Your task to perform on an android device: uninstall "Google Sheets" Image 0: 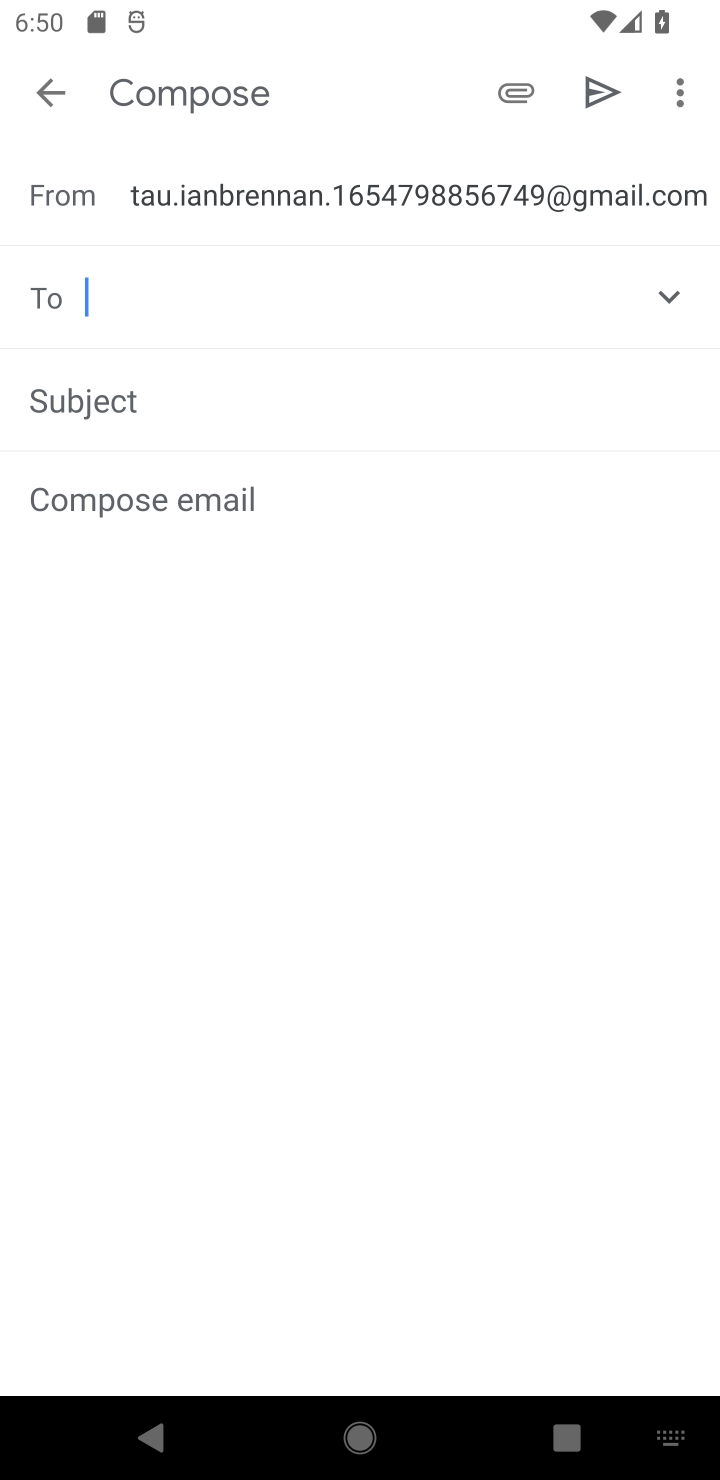
Step 0: press home button
Your task to perform on an android device: uninstall "Google Sheets" Image 1: 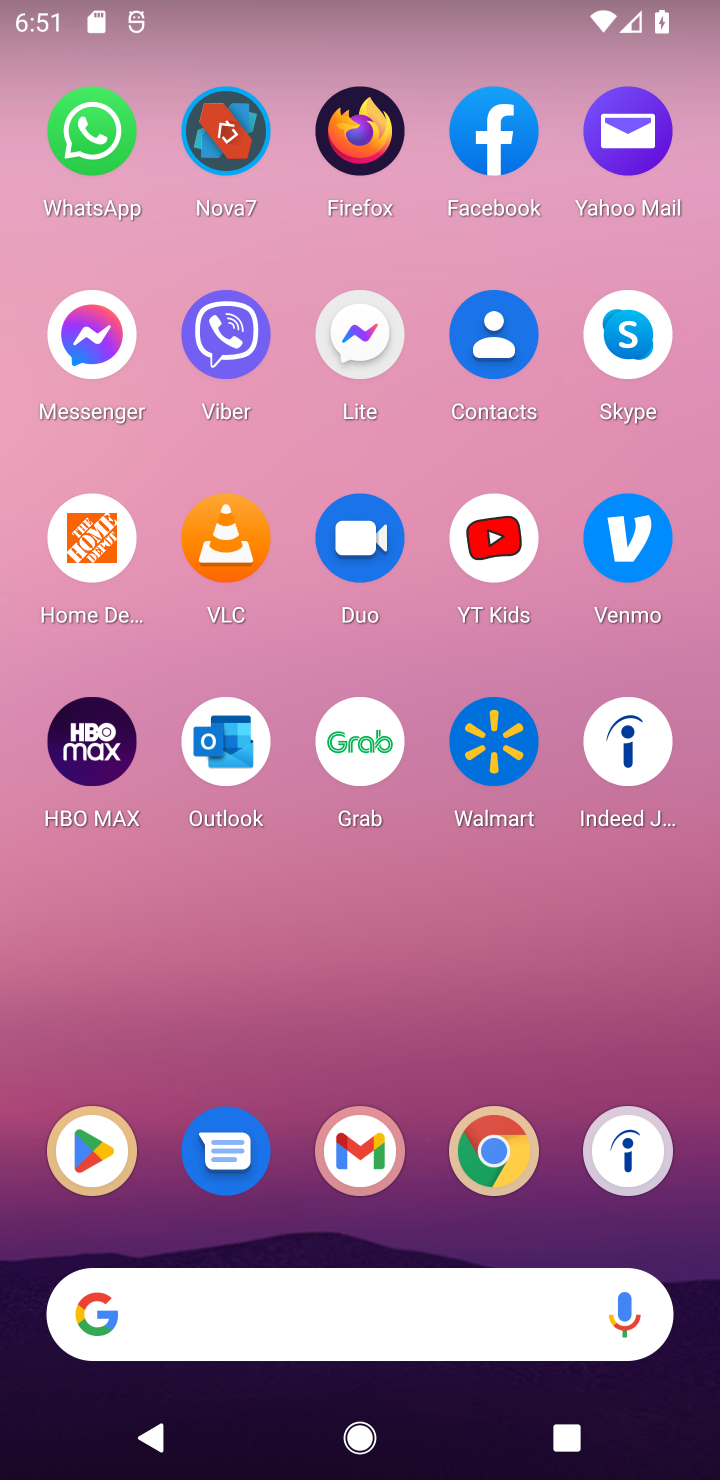
Step 1: click (82, 1174)
Your task to perform on an android device: uninstall "Google Sheets" Image 2: 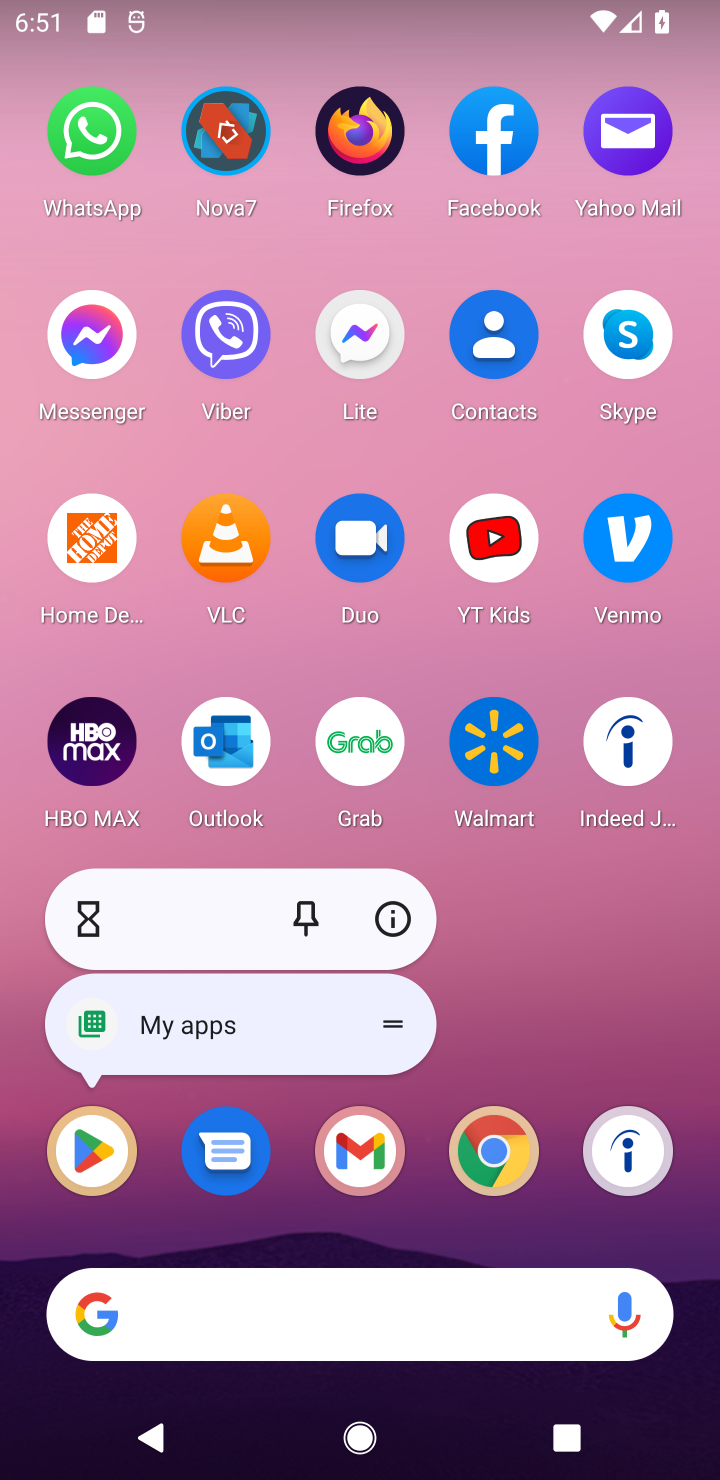
Step 2: click (88, 1155)
Your task to perform on an android device: uninstall "Google Sheets" Image 3: 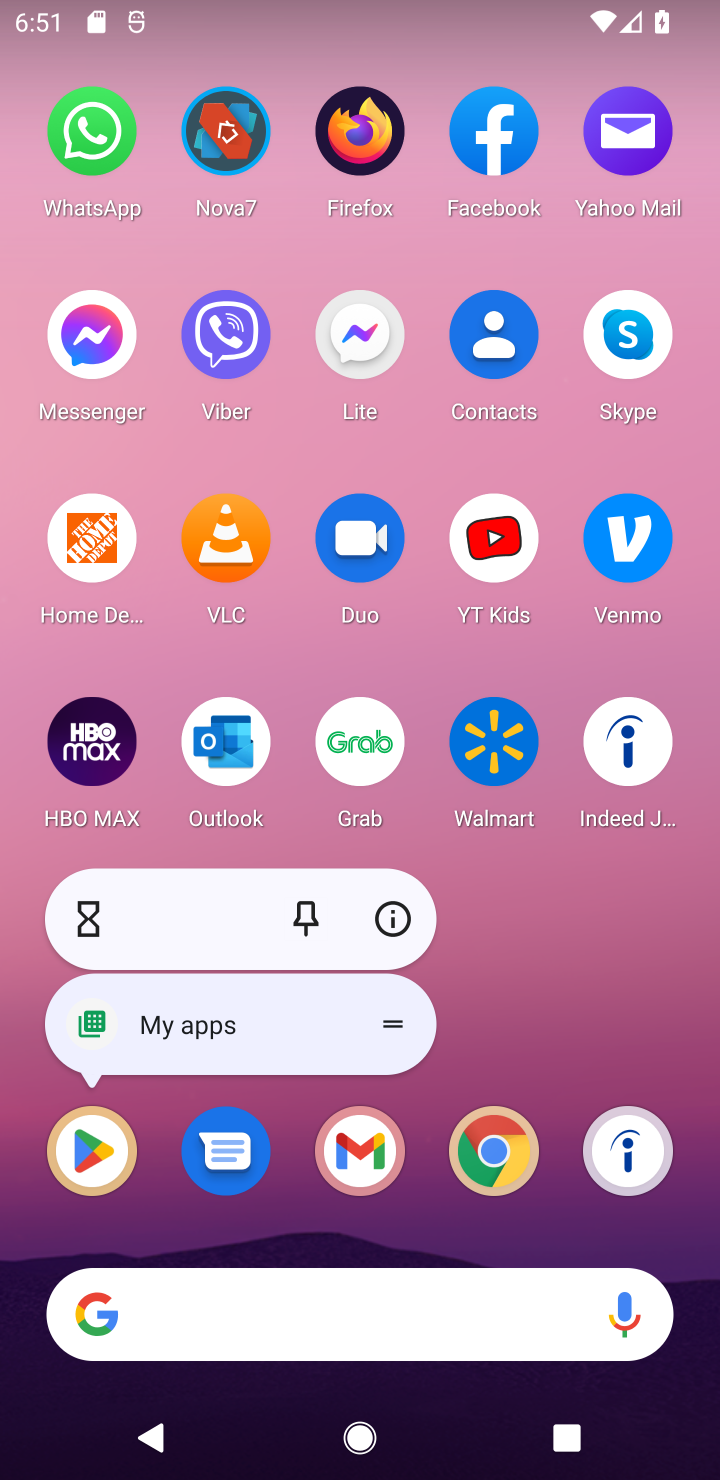
Step 3: click (90, 1168)
Your task to perform on an android device: uninstall "Google Sheets" Image 4: 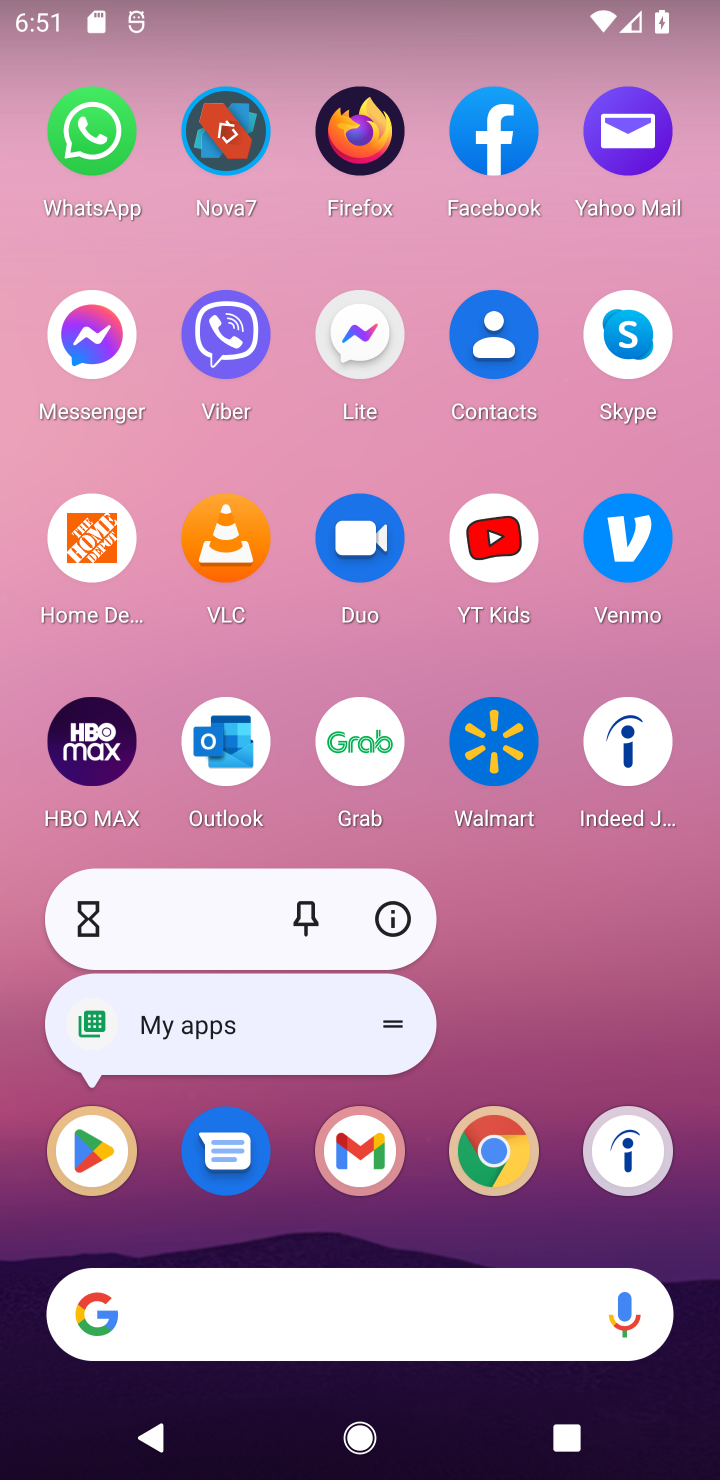
Step 4: click (90, 1168)
Your task to perform on an android device: uninstall "Google Sheets" Image 5: 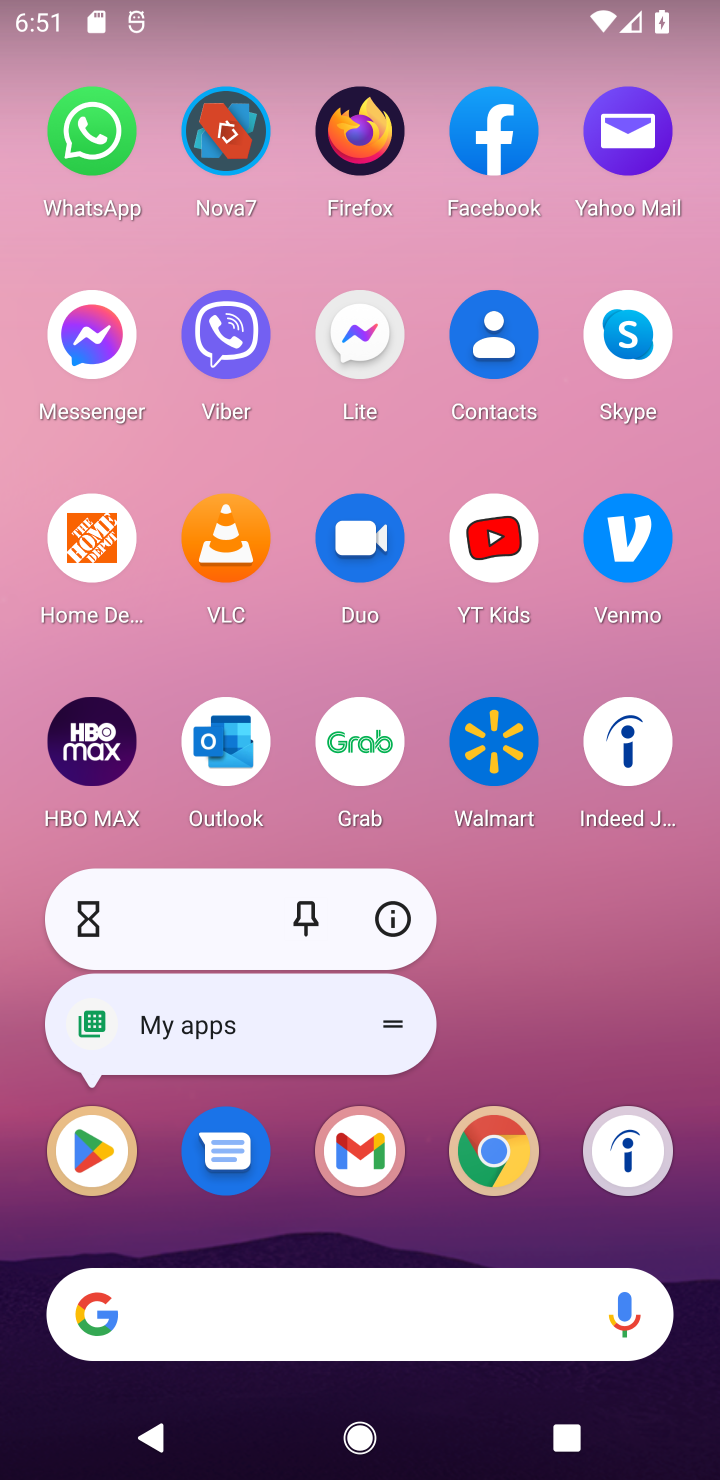
Step 5: click (90, 1168)
Your task to perform on an android device: uninstall "Google Sheets" Image 6: 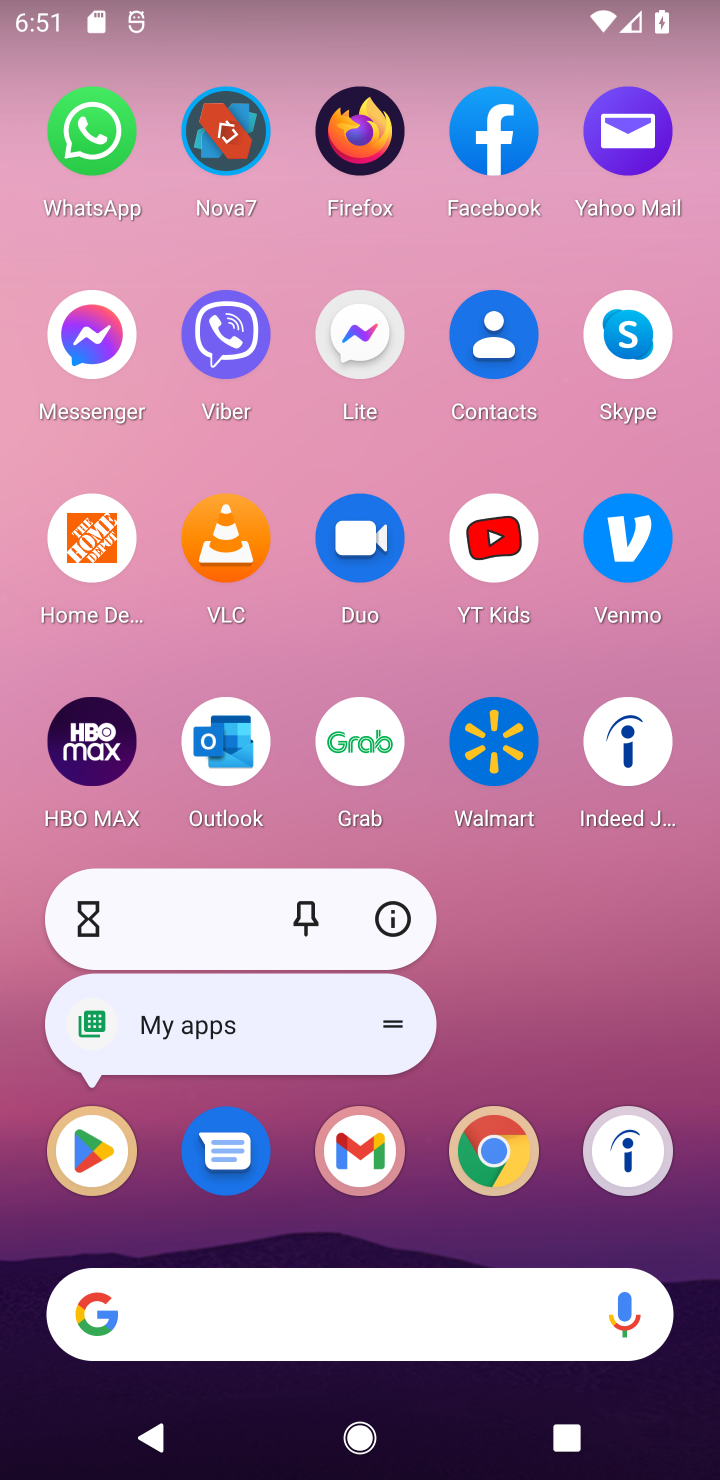
Step 6: click (90, 1168)
Your task to perform on an android device: uninstall "Google Sheets" Image 7: 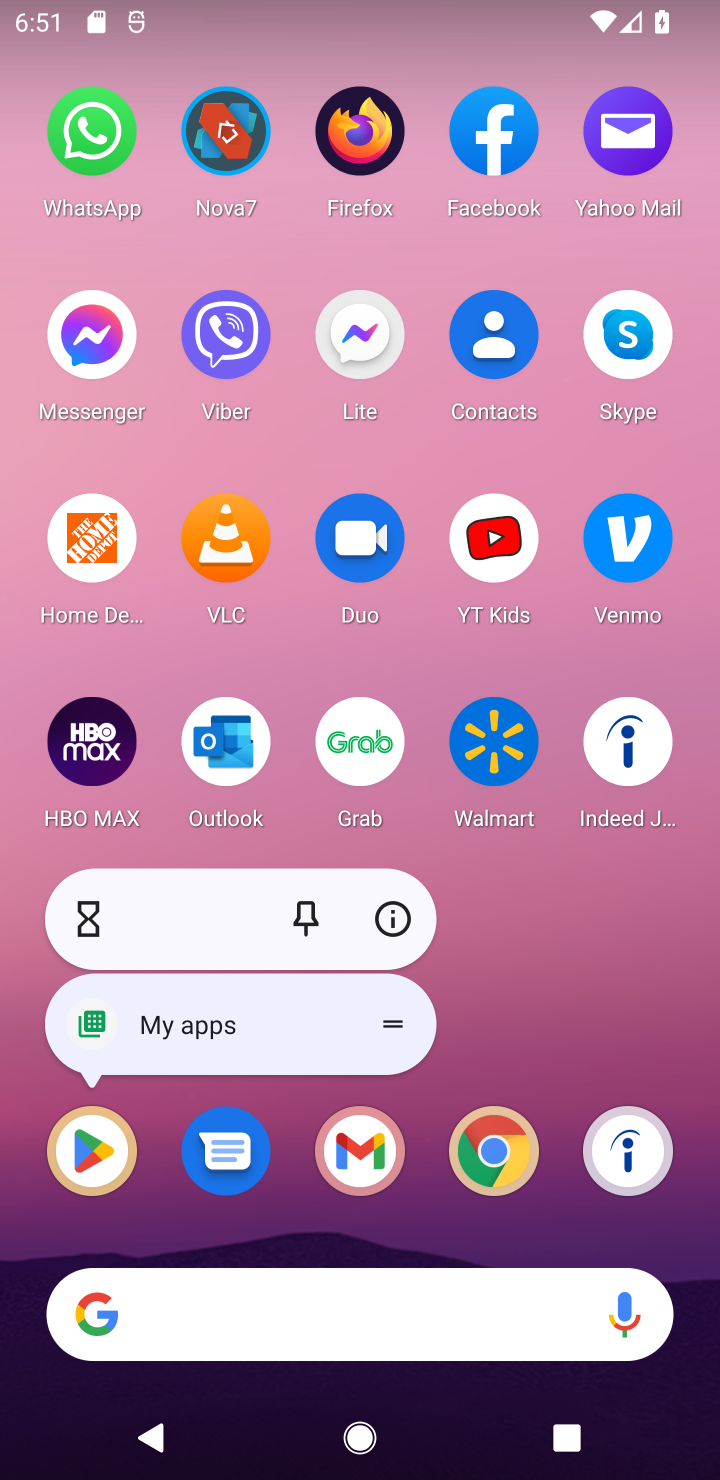
Step 7: click (95, 1157)
Your task to perform on an android device: uninstall "Google Sheets" Image 8: 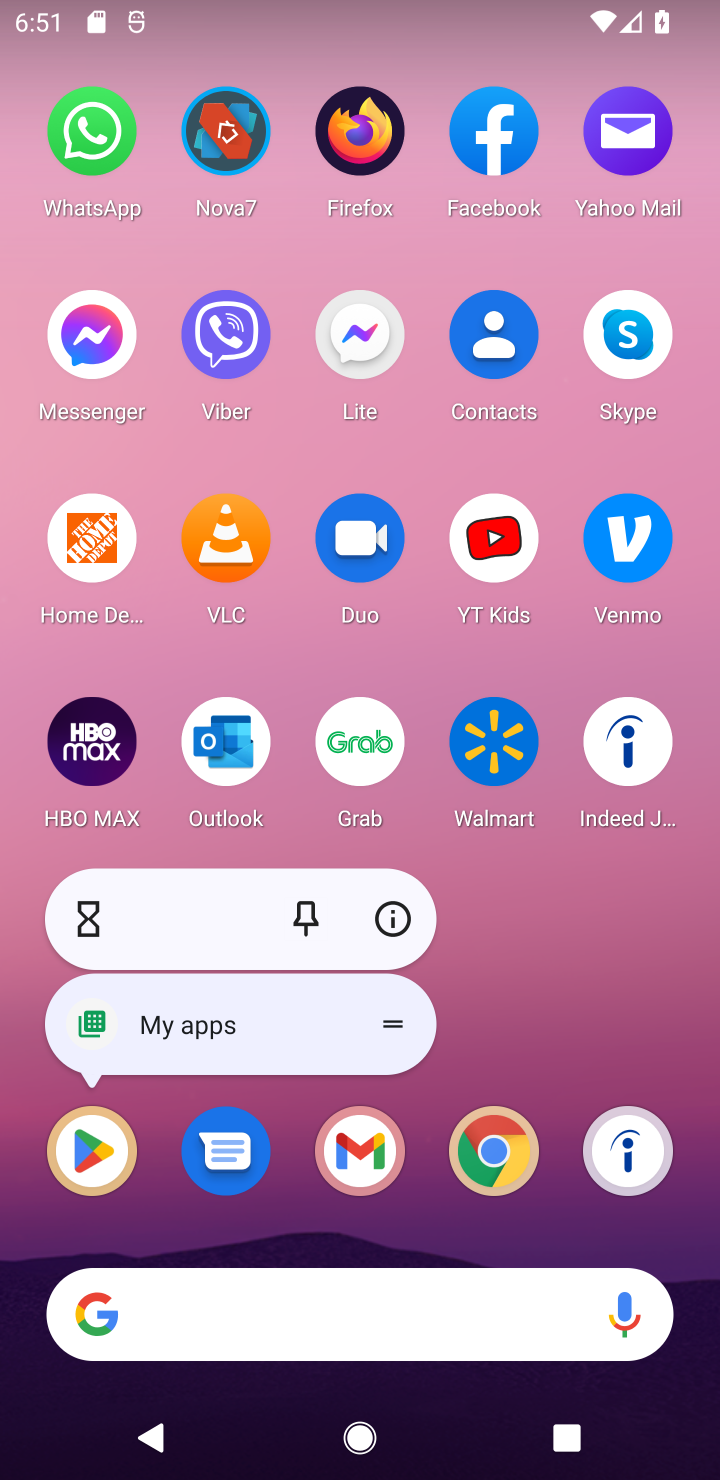
Step 8: click (95, 1157)
Your task to perform on an android device: uninstall "Google Sheets" Image 9: 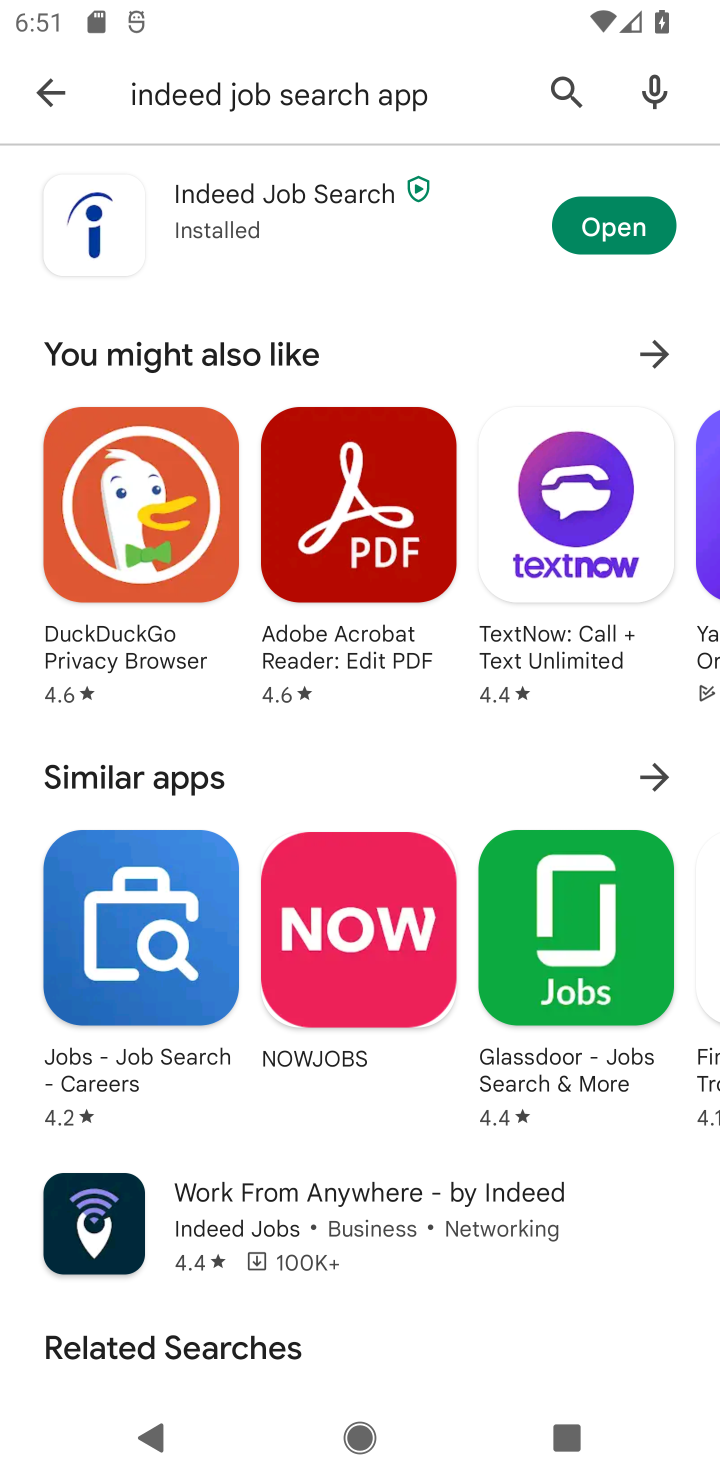
Step 9: click (569, 89)
Your task to perform on an android device: uninstall "Google Sheets" Image 10: 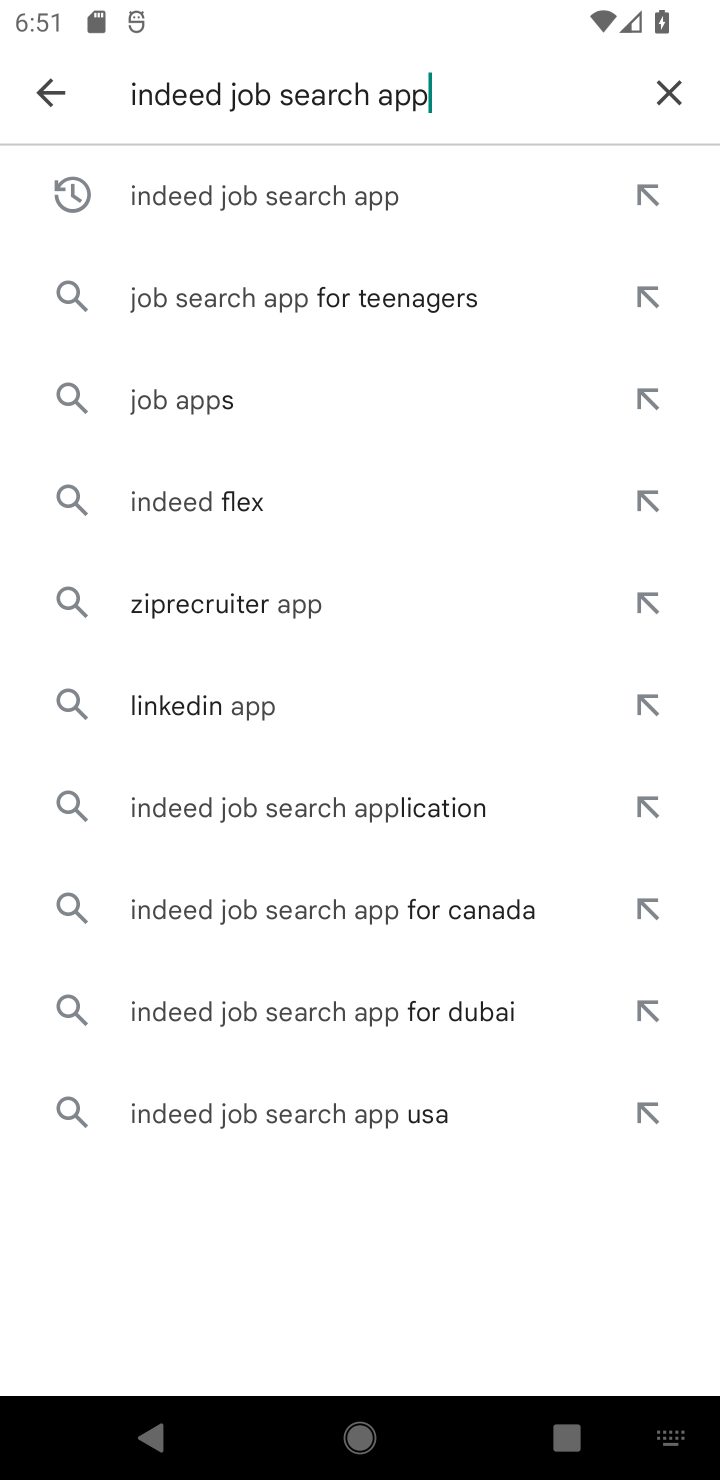
Step 10: click (663, 79)
Your task to perform on an android device: uninstall "Google Sheets" Image 11: 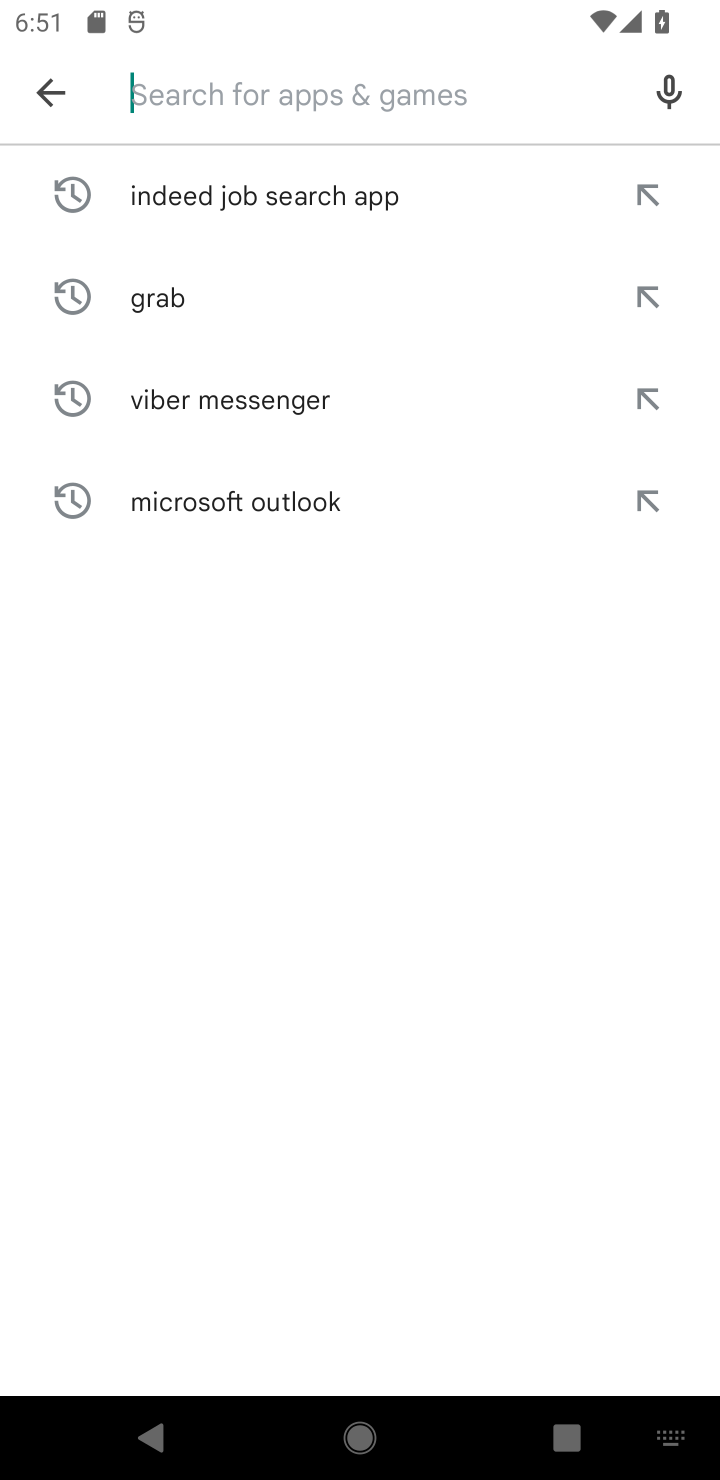
Step 11: click (235, 100)
Your task to perform on an android device: uninstall "Google Sheets" Image 12: 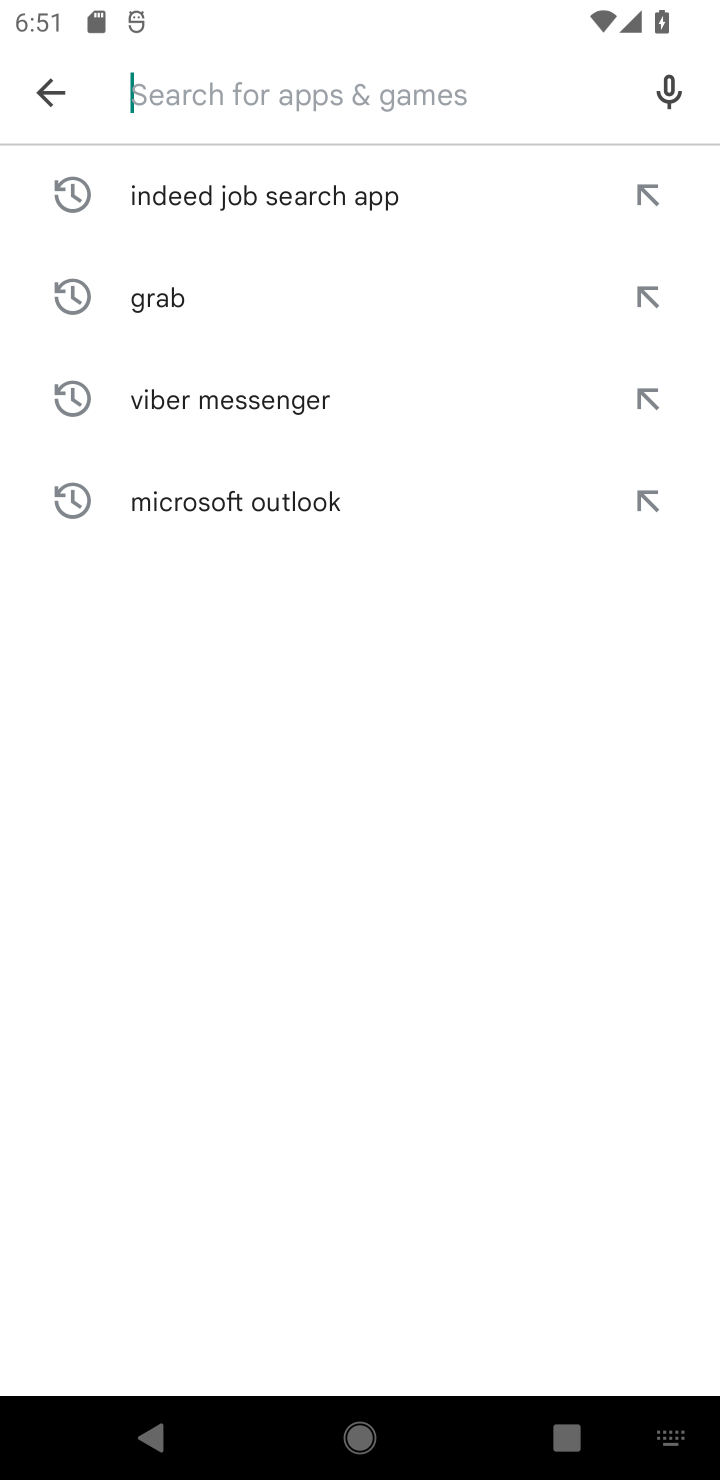
Step 12: type "Google Sheets"
Your task to perform on an android device: uninstall "Google Sheets" Image 13: 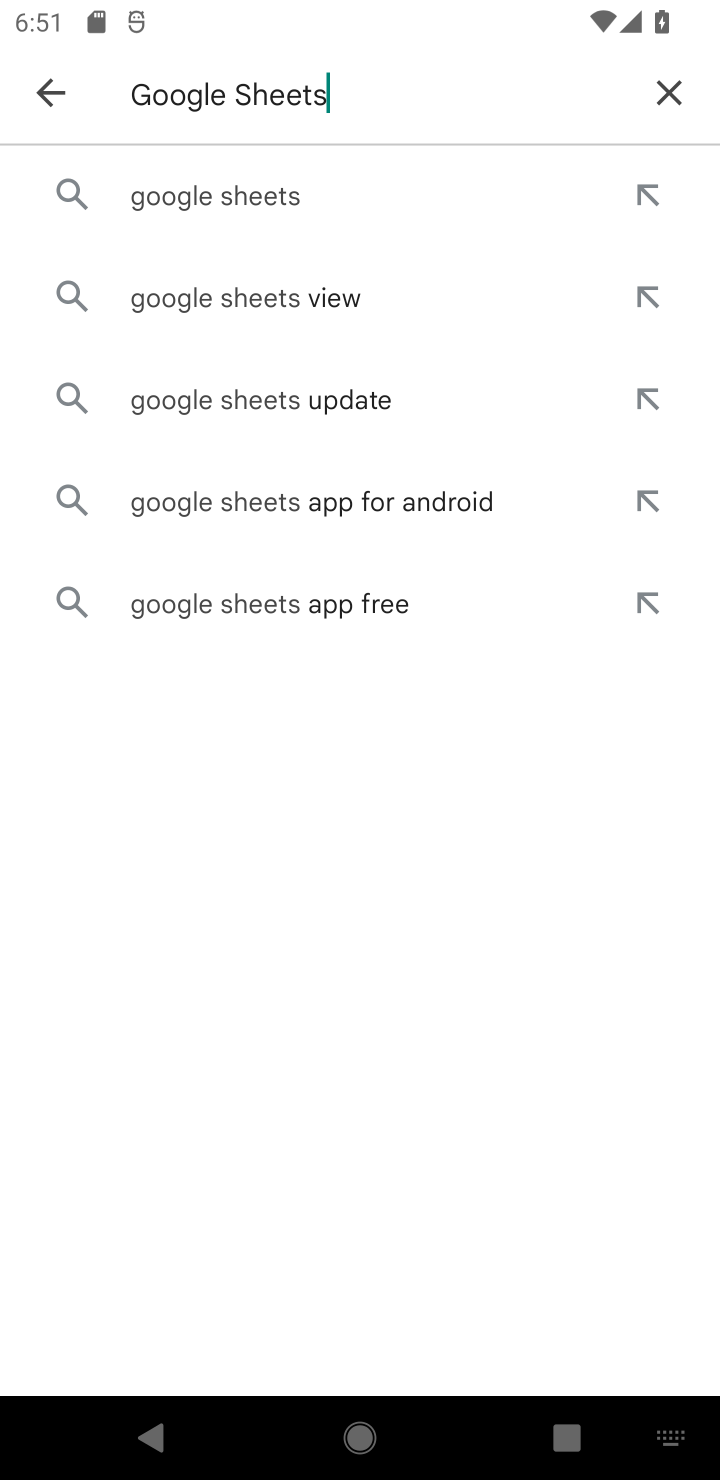
Step 13: click (224, 195)
Your task to perform on an android device: uninstall "Google Sheets" Image 14: 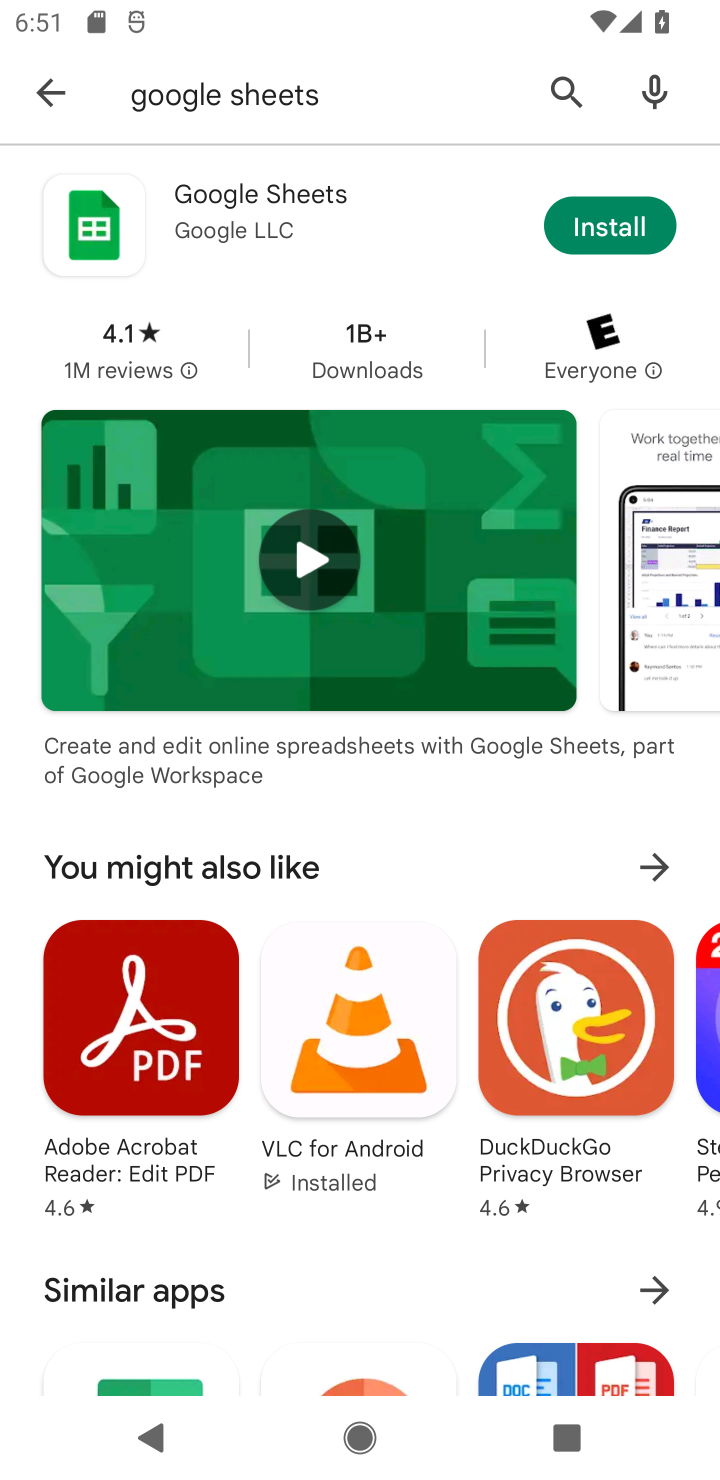
Step 14: task complete